Your task to perform on an android device: What's the weather going to be tomorrow? Image 0: 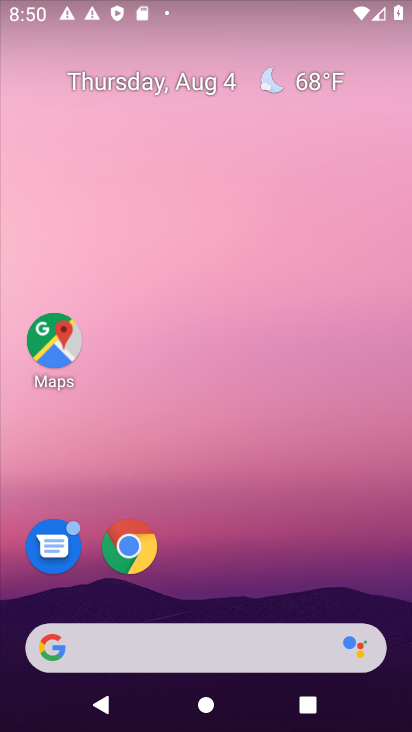
Step 0: press home button
Your task to perform on an android device: What's the weather going to be tomorrow? Image 1: 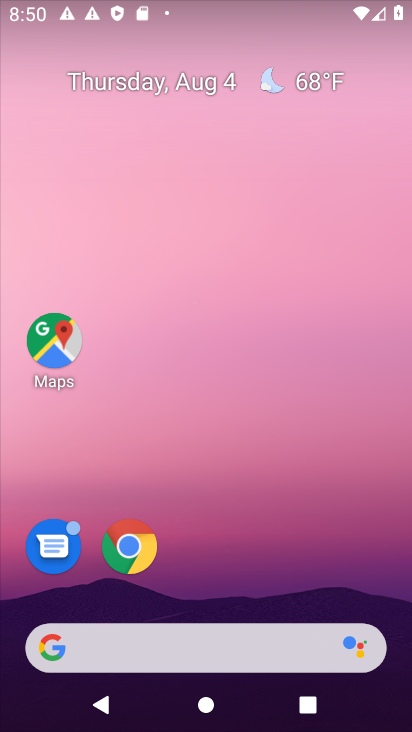
Step 1: click (55, 651)
Your task to perform on an android device: What's the weather going to be tomorrow? Image 2: 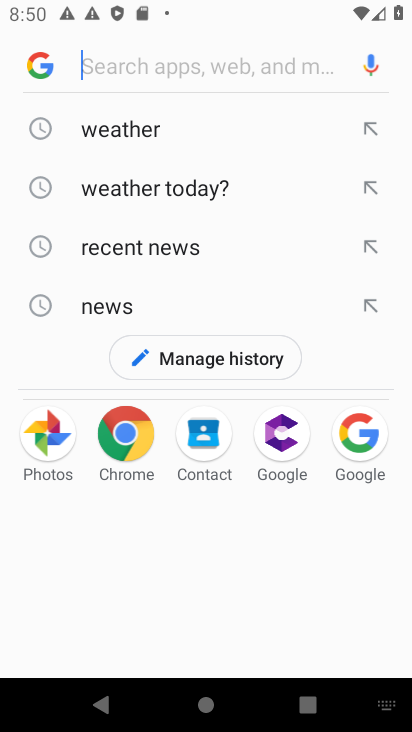
Step 2: press enter
Your task to perform on an android device: What's the weather going to be tomorrow? Image 3: 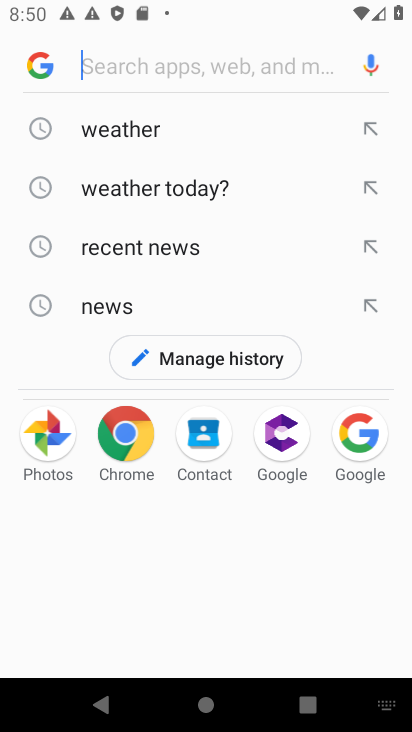
Step 3: type " weather going to be tomorrow?"
Your task to perform on an android device: What's the weather going to be tomorrow? Image 4: 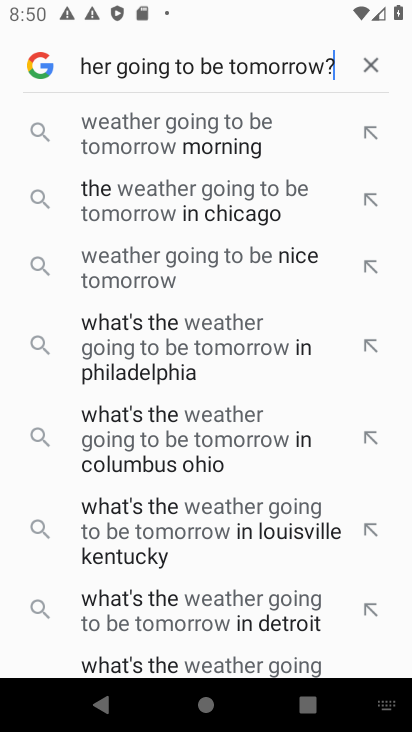
Step 4: press enter
Your task to perform on an android device: What's the weather going to be tomorrow? Image 5: 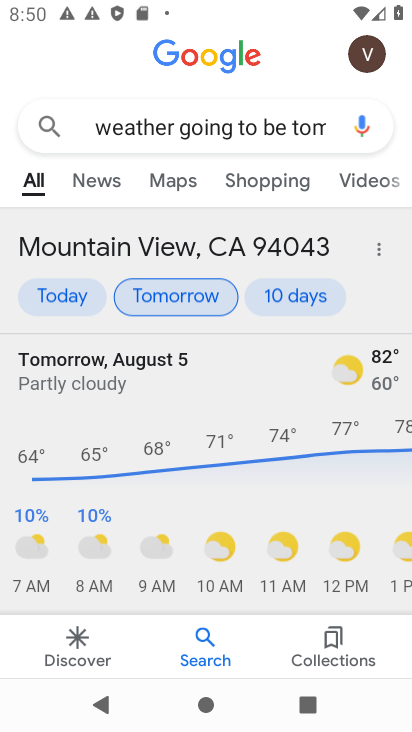
Step 5: task complete